Your task to perform on an android device: add a label to a message in the gmail app Image 0: 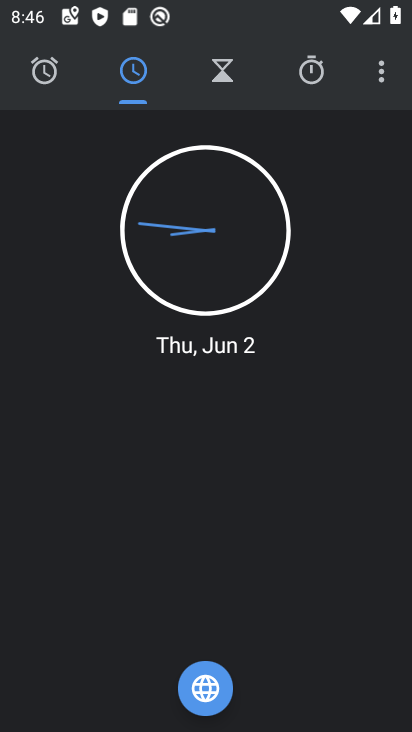
Step 0: press home button
Your task to perform on an android device: add a label to a message in the gmail app Image 1: 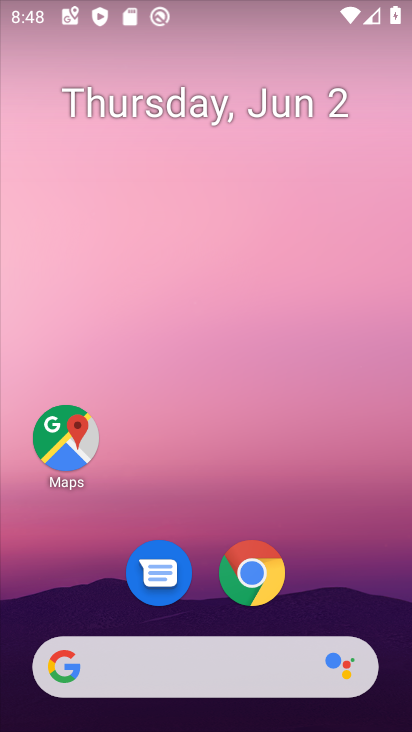
Step 1: drag from (378, 557) to (381, 156)
Your task to perform on an android device: add a label to a message in the gmail app Image 2: 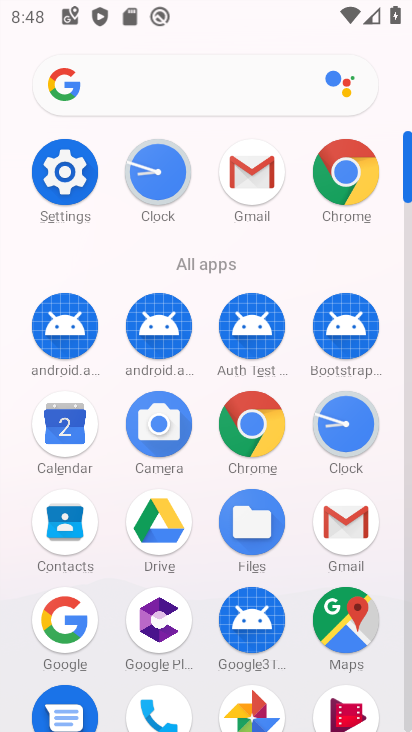
Step 2: click (244, 163)
Your task to perform on an android device: add a label to a message in the gmail app Image 3: 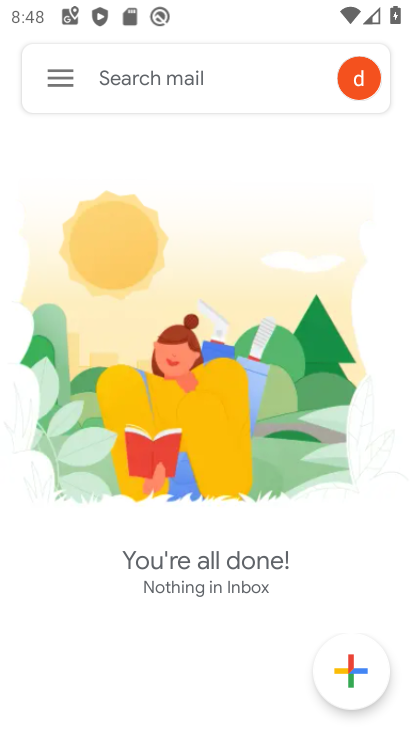
Step 3: task complete